Your task to perform on an android device: open the mobile data screen to see how much data has been used Image 0: 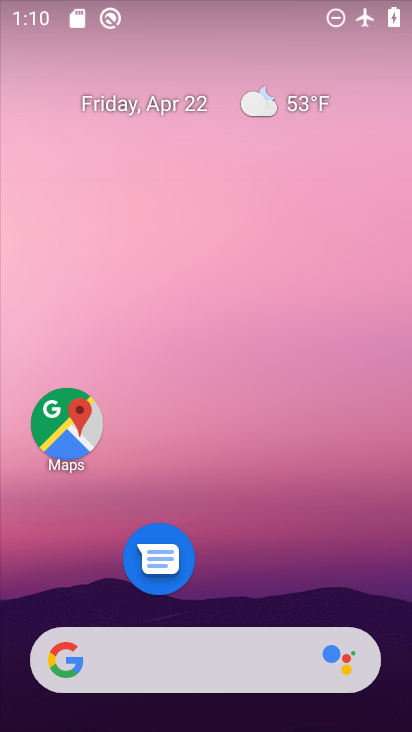
Step 0: drag from (223, 627) to (168, 35)
Your task to perform on an android device: open the mobile data screen to see how much data has been used Image 1: 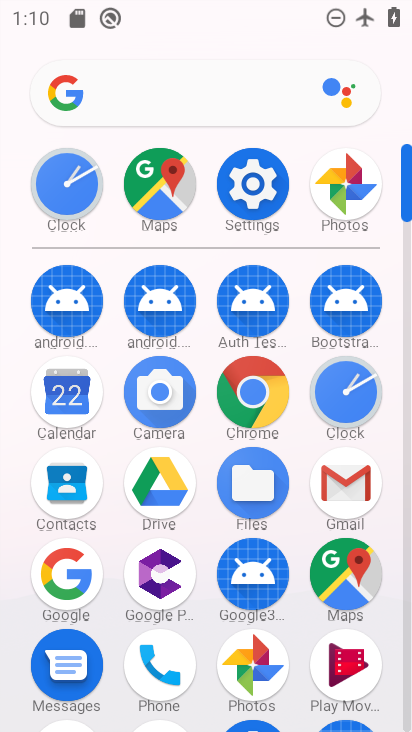
Step 1: click (252, 183)
Your task to perform on an android device: open the mobile data screen to see how much data has been used Image 2: 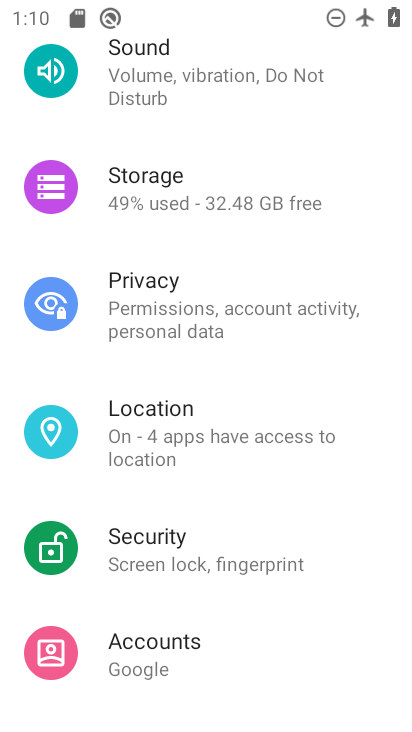
Step 2: drag from (229, 176) to (292, 602)
Your task to perform on an android device: open the mobile data screen to see how much data has been used Image 3: 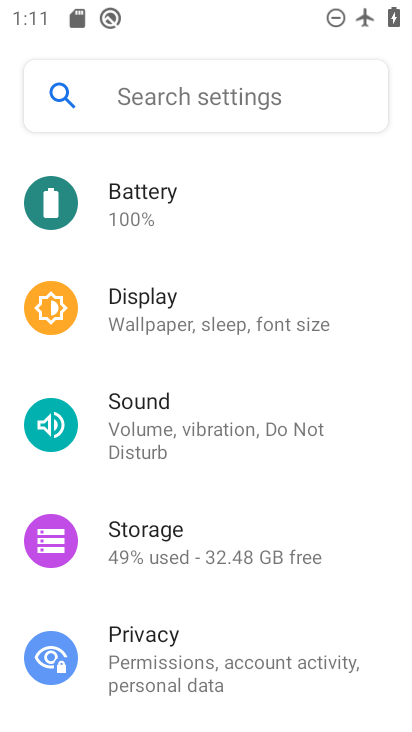
Step 3: drag from (250, 243) to (248, 585)
Your task to perform on an android device: open the mobile data screen to see how much data has been used Image 4: 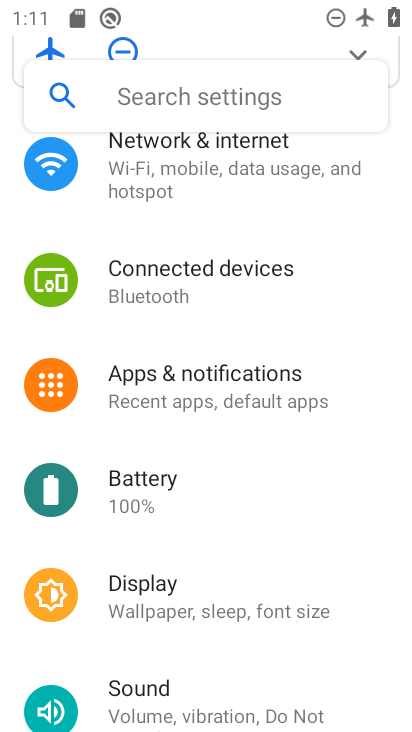
Step 4: drag from (216, 203) to (212, 454)
Your task to perform on an android device: open the mobile data screen to see how much data has been used Image 5: 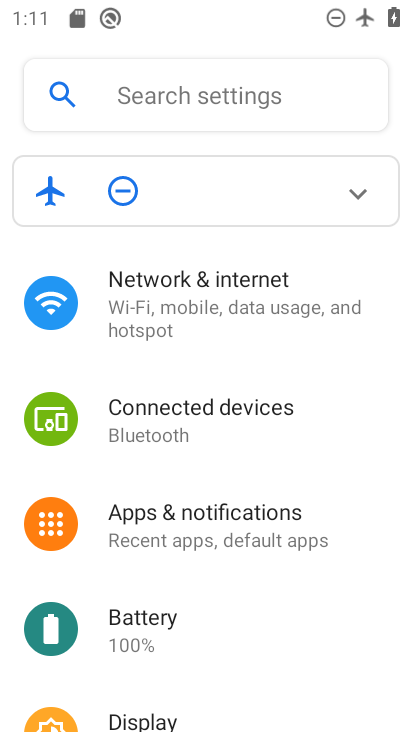
Step 5: click (147, 307)
Your task to perform on an android device: open the mobile data screen to see how much data has been used Image 6: 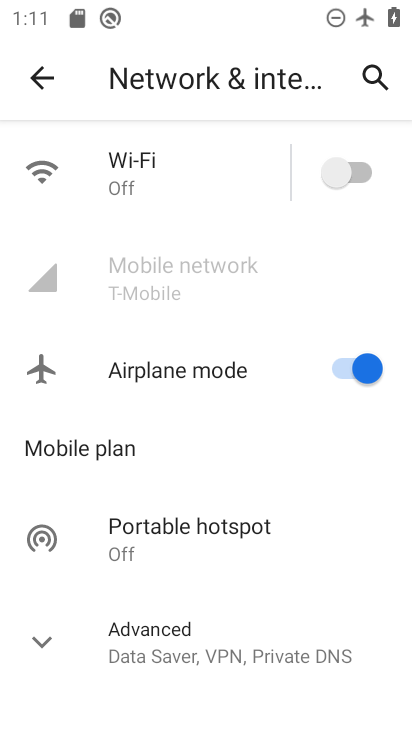
Step 6: click (215, 298)
Your task to perform on an android device: open the mobile data screen to see how much data has been used Image 7: 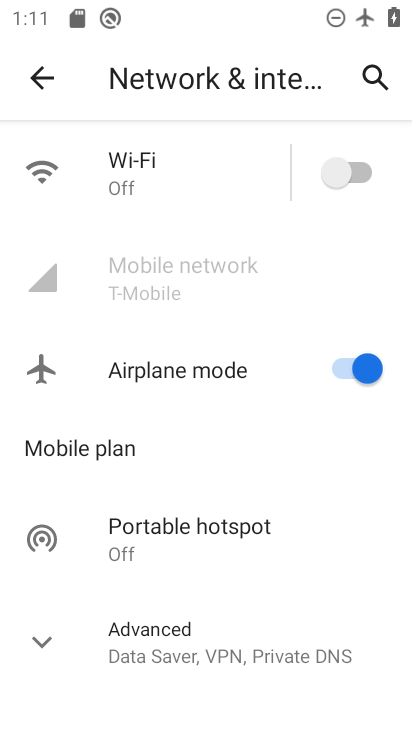
Step 7: click (200, 269)
Your task to perform on an android device: open the mobile data screen to see how much data has been used Image 8: 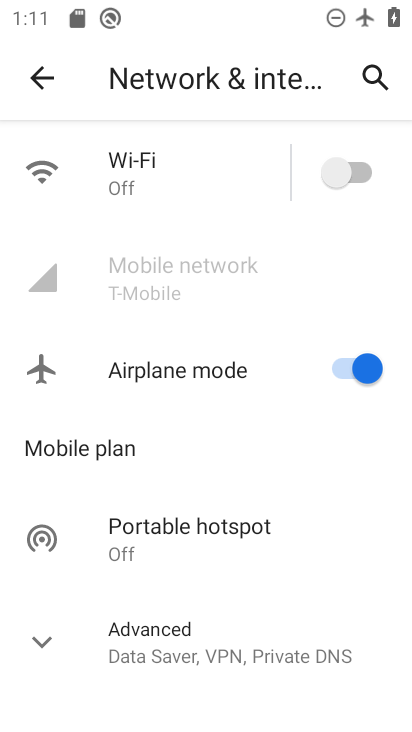
Step 8: click (337, 367)
Your task to perform on an android device: open the mobile data screen to see how much data has been used Image 9: 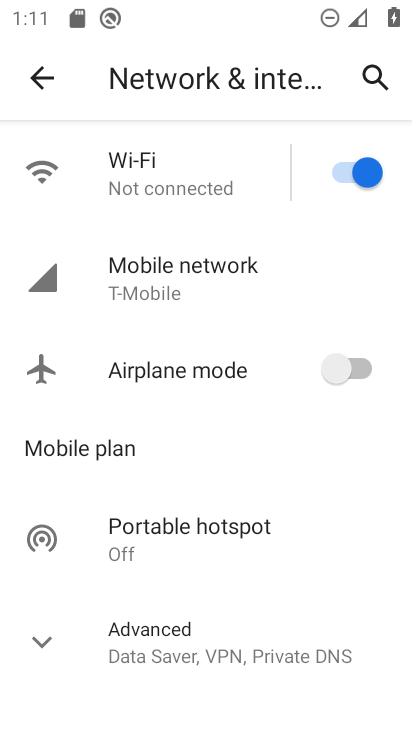
Step 9: click (189, 273)
Your task to perform on an android device: open the mobile data screen to see how much data has been used Image 10: 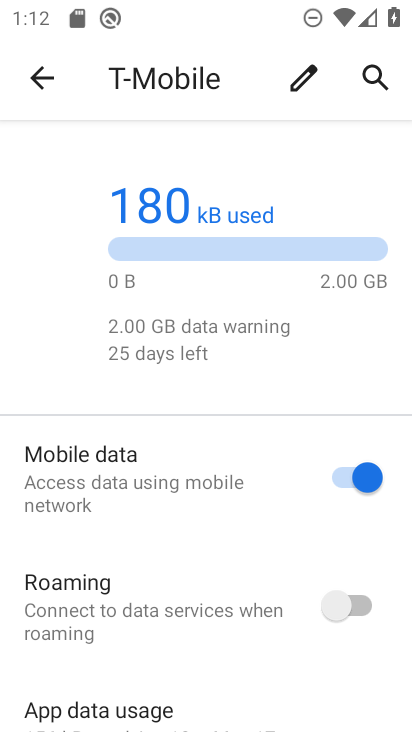
Step 10: drag from (205, 679) to (224, 197)
Your task to perform on an android device: open the mobile data screen to see how much data has been used Image 11: 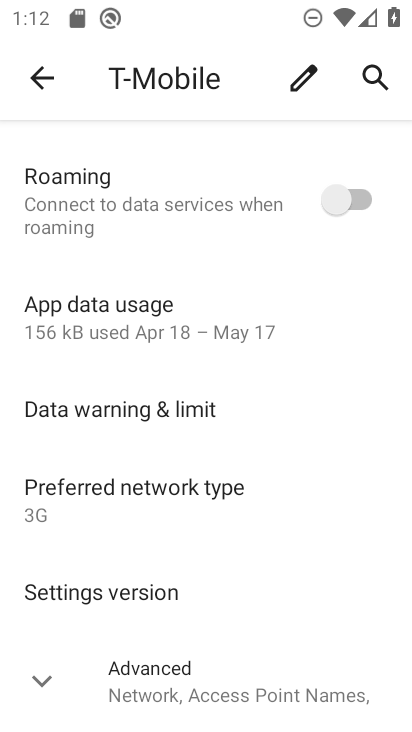
Step 11: click (111, 316)
Your task to perform on an android device: open the mobile data screen to see how much data has been used Image 12: 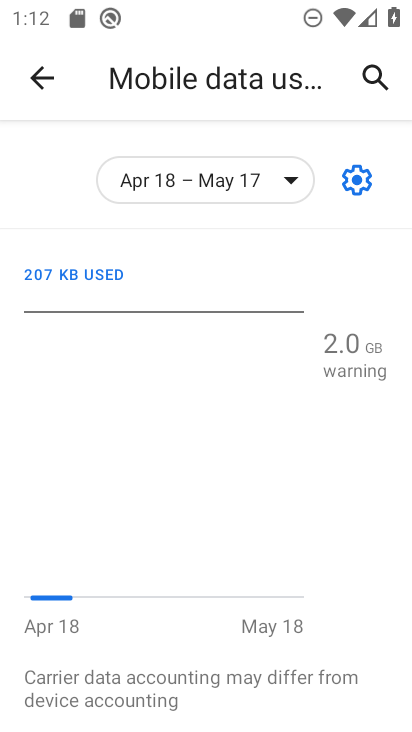
Step 12: task complete